Your task to perform on an android device: Open settings on Google Maps Image 0: 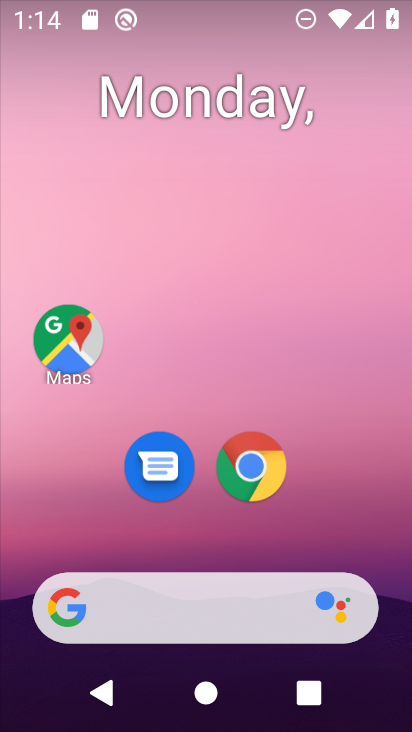
Step 0: click (79, 347)
Your task to perform on an android device: Open settings on Google Maps Image 1: 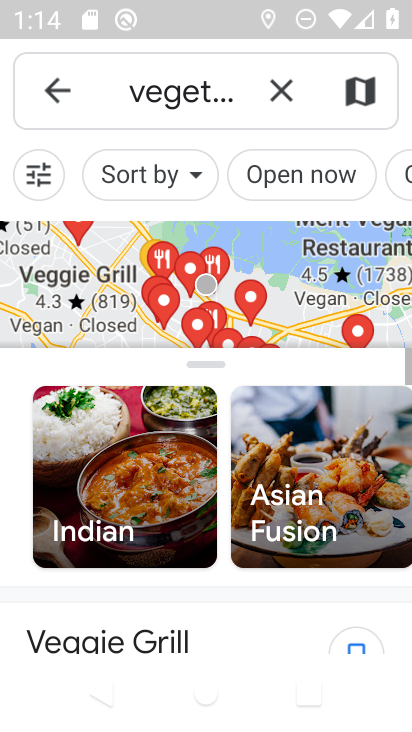
Step 1: click (57, 88)
Your task to perform on an android device: Open settings on Google Maps Image 2: 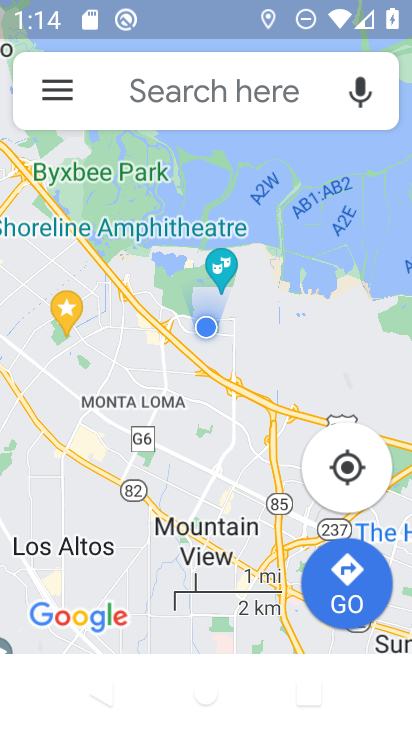
Step 2: click (59, 85)
Your task to perform on an android device: Open settings on Google Maps Image 3: 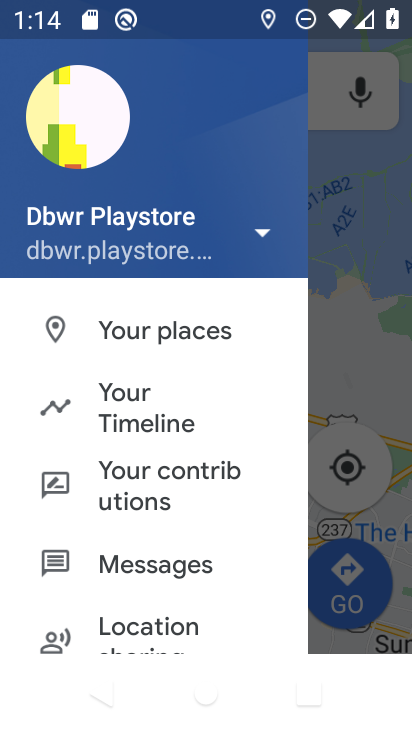
Step 3: drag from (155, 568) to (229, 147)
Your task to perform on an android device: Open settings on Google Maps Image 4: 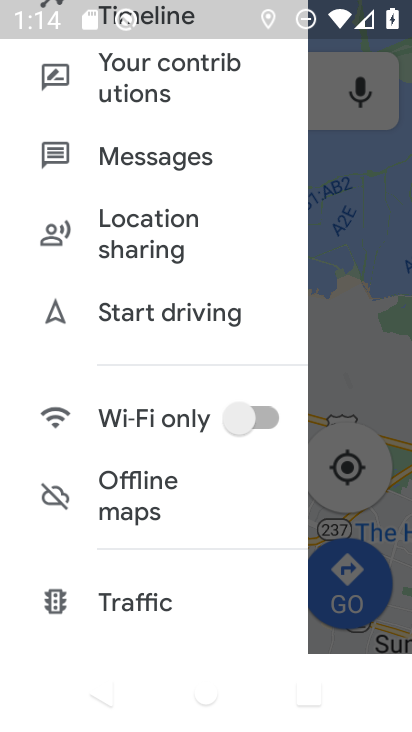
Step 4: drag from (167, 532) to (202, 163)
Your task to perform on an android device: Open settings on Google Maps Image 5: 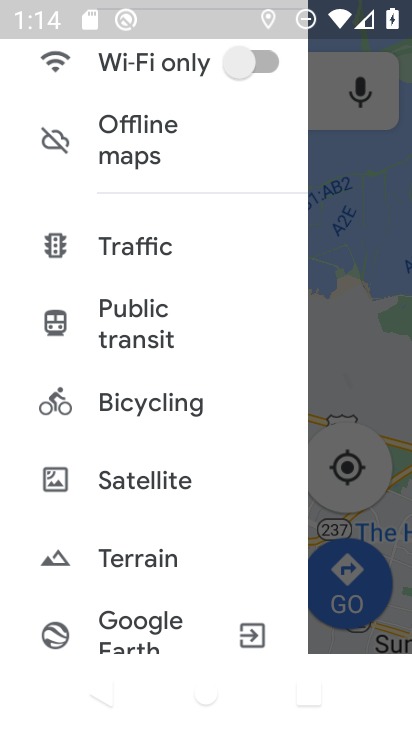
Step 5: drag from (156, 547) to (175, 265)
Your task to perform on an android device: Open settings on Google Maps Image 6: 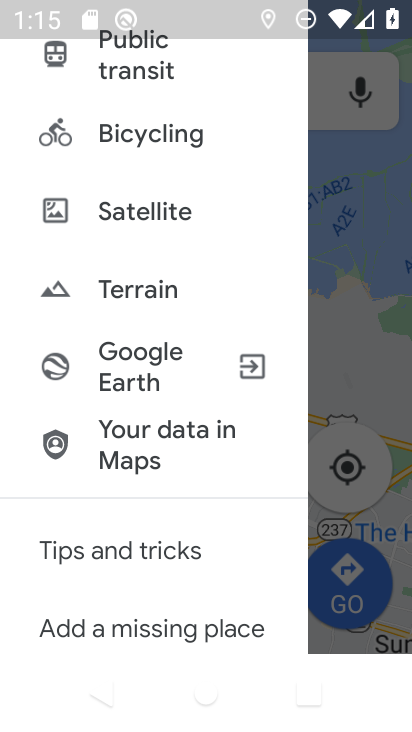
Step 6: drag from (135, 587) to (185, 231)
Your task to perform on an android device: Open settings on Google Maps Image 7: 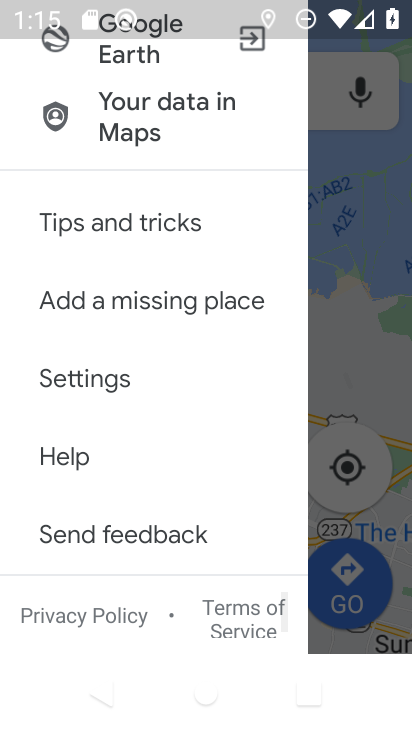
Step 7: click (86, 373)
Your task to perform on an android device: Open settings on Google Maps Image 8: 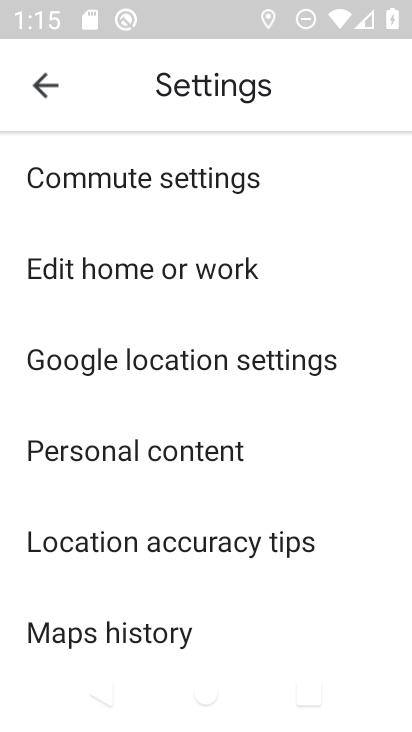
Step 8: task complete